Your task to perform on an android device: Go to network settings Image 0: 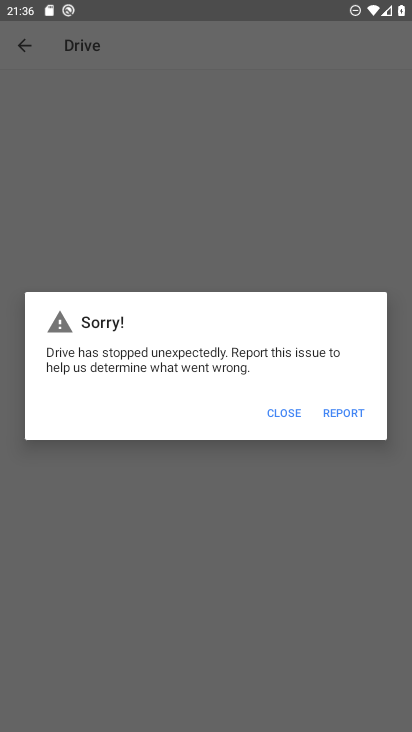
Step 0: click (272, 618)
Your task to perform on an android device: Go to network settings Image 1: 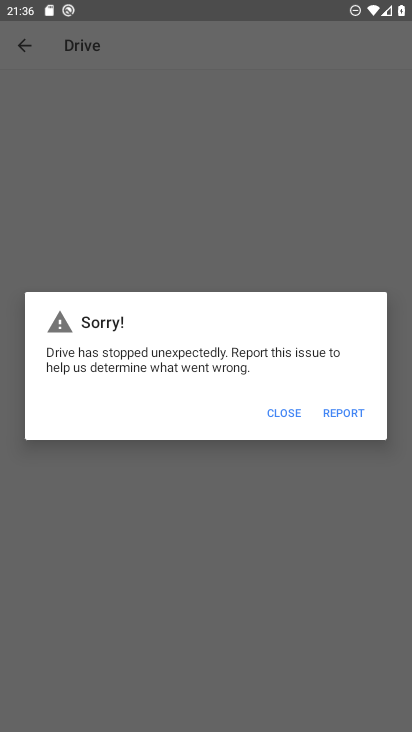
Step 1: press home button
Your task to perform on an android device: Go to network settings Image 2: 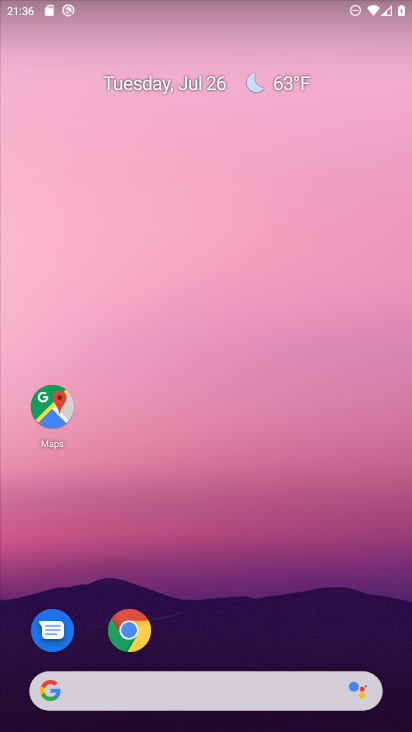
Step 2: drag from (318, 595) to (244, 116)
Your task to perform on an android device: Go to network settings Image 3: 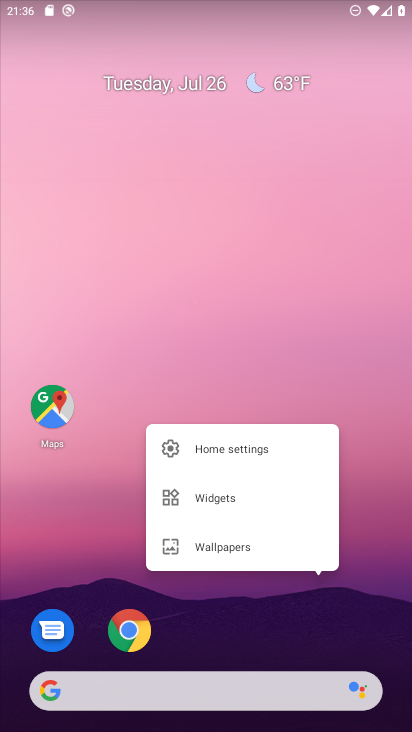
Step 3: click (212, 615)
Your task to perform on an android device: Go to network settings Image 4: 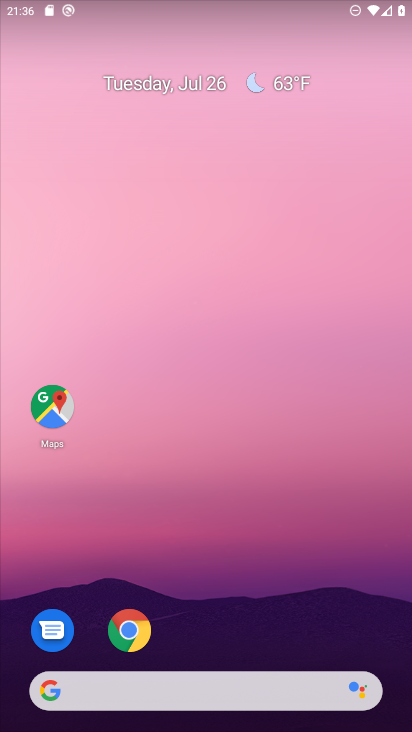
Step 4: drag from (212, 615) to (158, 16)
Your task to perform on an android device: Go to network settings Image 5: 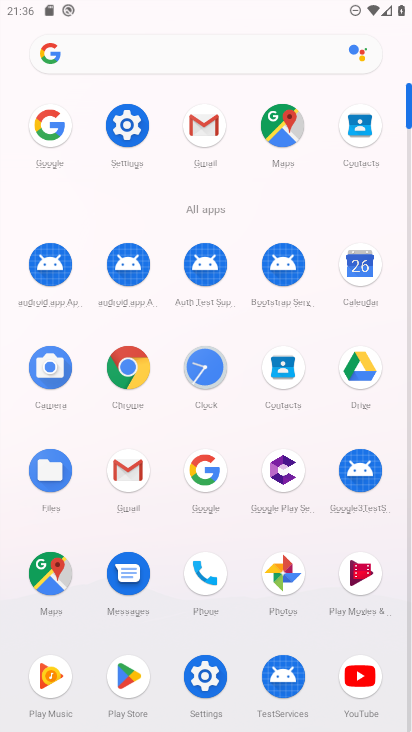
Step 5: click (122, 124)
Your task to perform on an android device: Go to network settings Image 6: 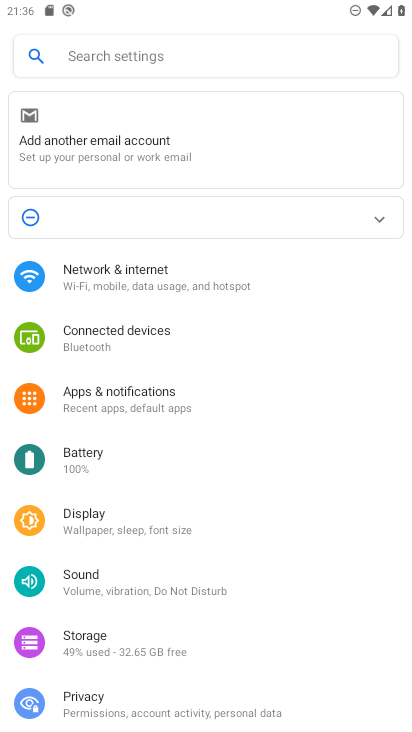
Step 6: click (174, 263)
Your task to perform on an android device: Go to network settings Image 7: 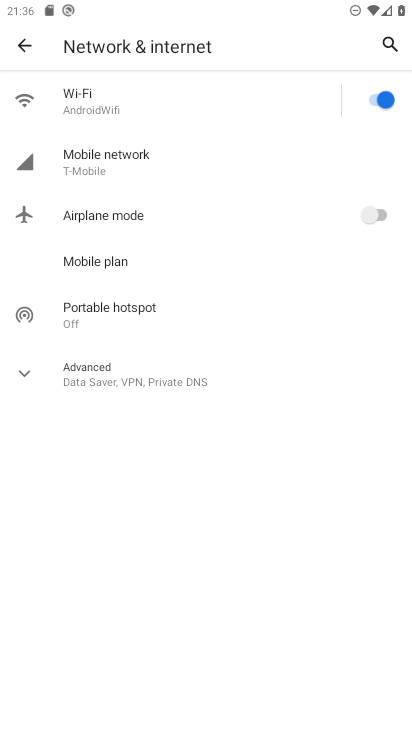
Step 7: task complete